Your task to perform on an android device: Open notification settings Image 0: 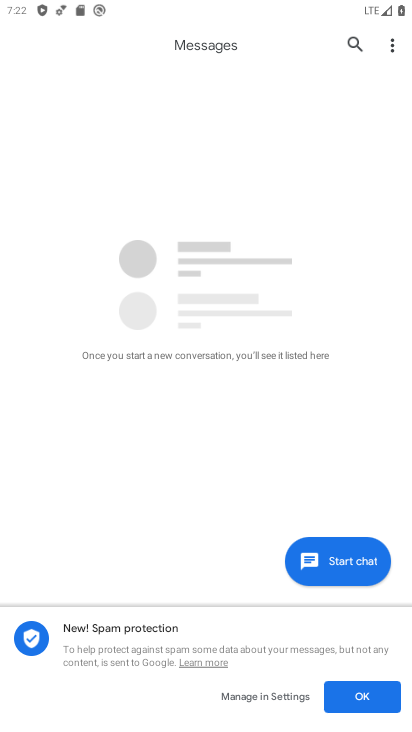
Step 0: press back button
Your task to perform on an android device: Open notification settings Image 1: 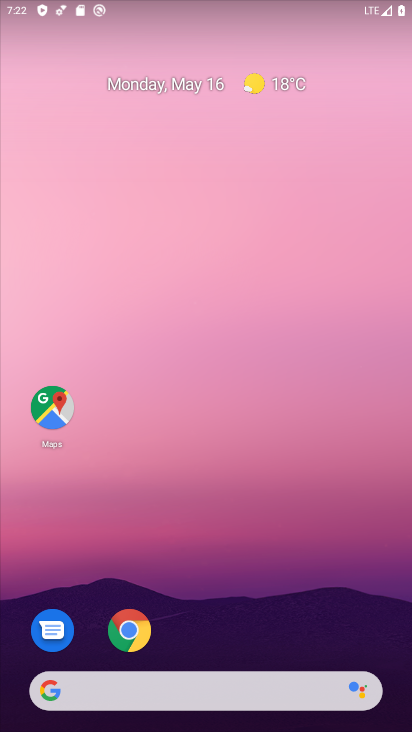
Step 1: drag from (308, 630) to (217, 113)
Your task to perform on an android device: Open notification settings Image 2: 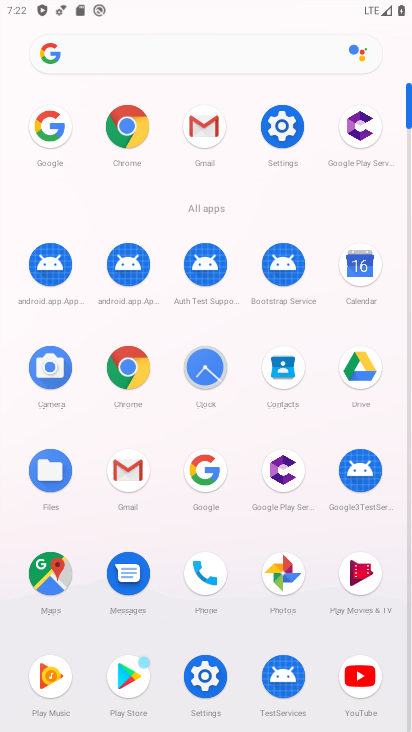
Step 2: click (281, 126)
Your task to perform on an android device: Open notification settings Image 3: 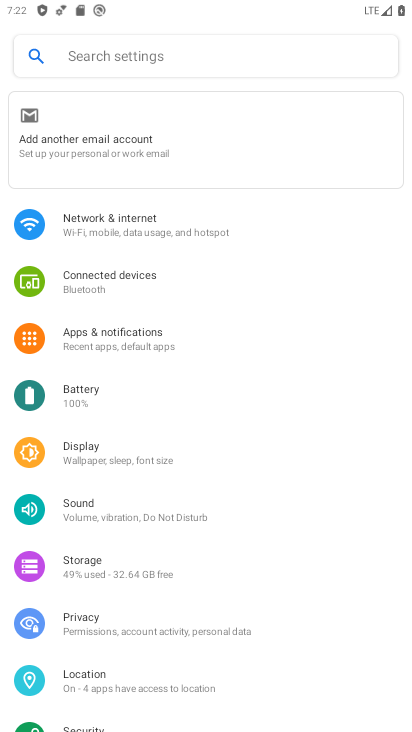
Step 3: task complete